Your task to perform on an android device: check out phone information Image 0: 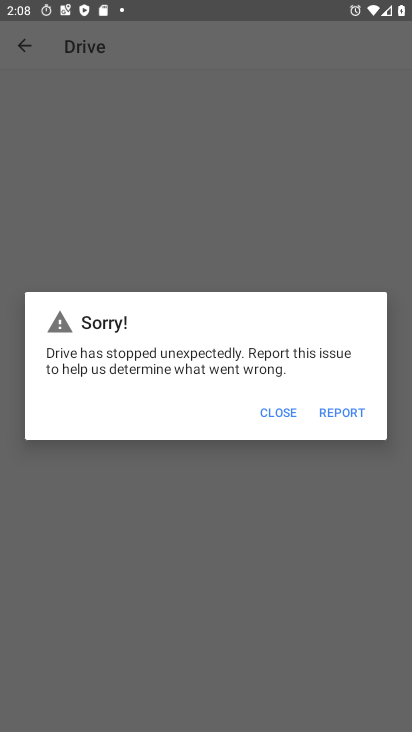
Step 0: press home button
Your task to perform on an android device: check out phone information Image 1: 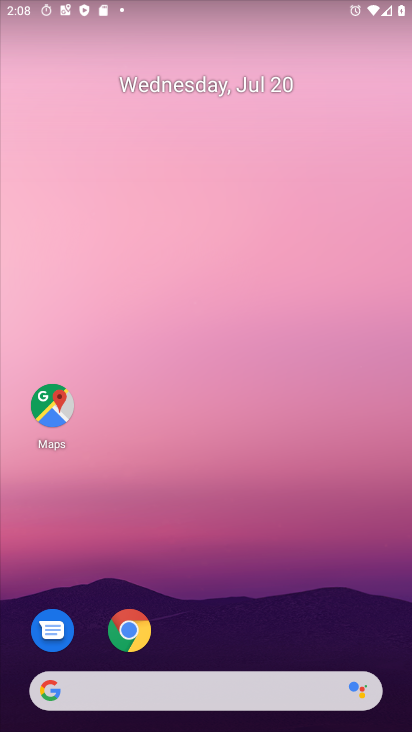
Step 1: drag from (184, 652) to (282, 72)
Your task to perform on an android device: check out phone information Image 2: 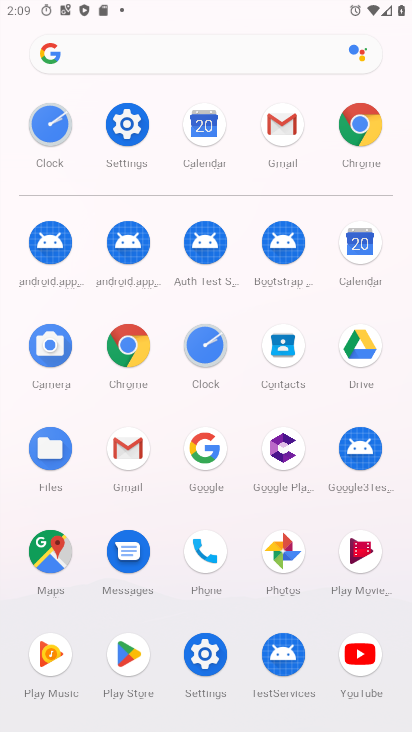
Step 2: click (125, 123)
Your task to perform on an android device: check out phone information Image 3: 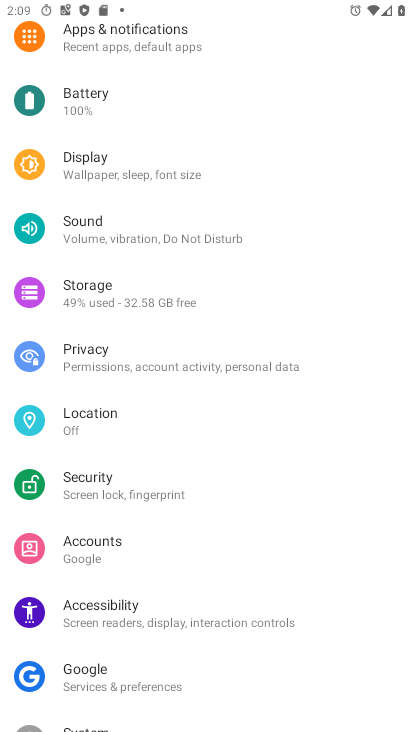
Step 3: drag from (311, 597) to (339, 24)
Your task to perform on an android device: check out phone information Image 4: 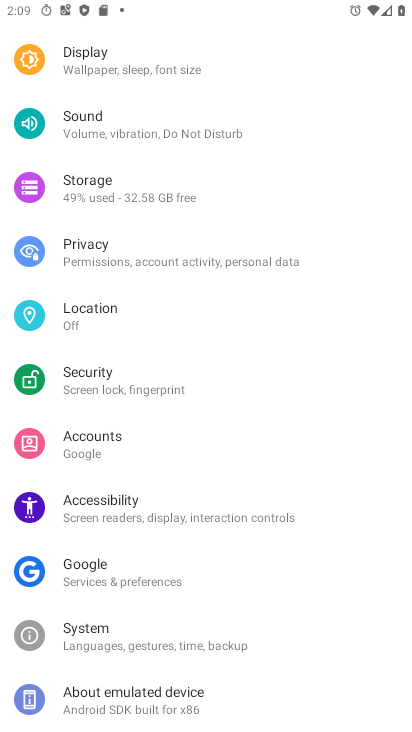
Step 4: click (183, 691)
Your task to perform on an android device: check out phone information Image 5: 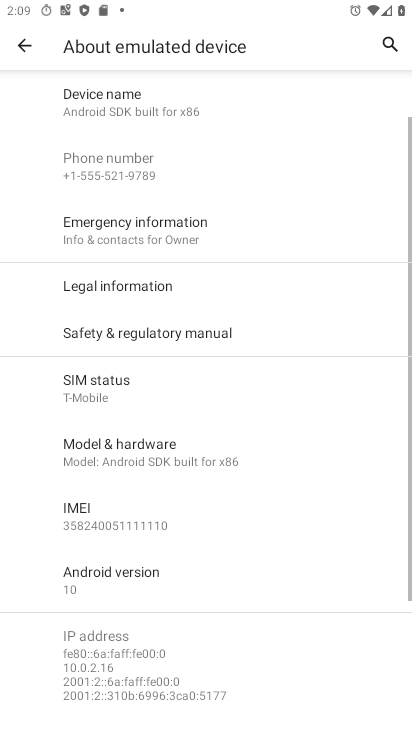
Step 5: task complete